Your task to perform on an android device: visit the assistant section in the google photos Image 0: 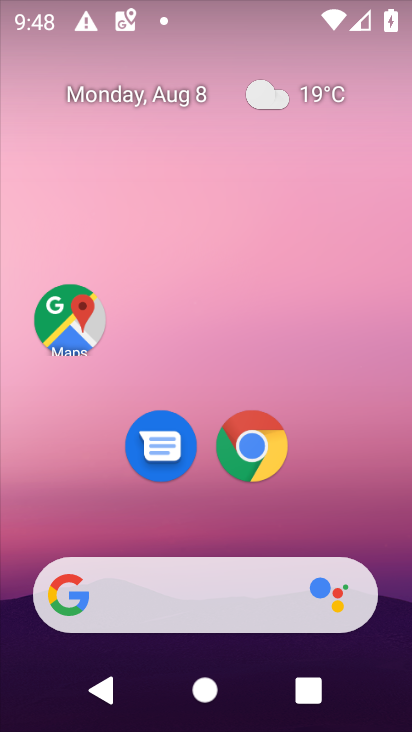
Step 0: drag from (383, 568) to (378, 298)
Your task to perform on an android device: visit the assistant section in the google photos Image 1: 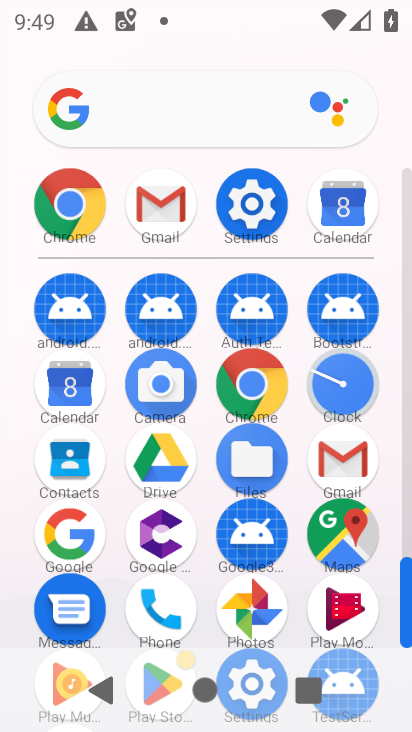
Step 1: click (246, 607)
Your task to perform on an android device: visit the assistant section in the google photos Image 2: 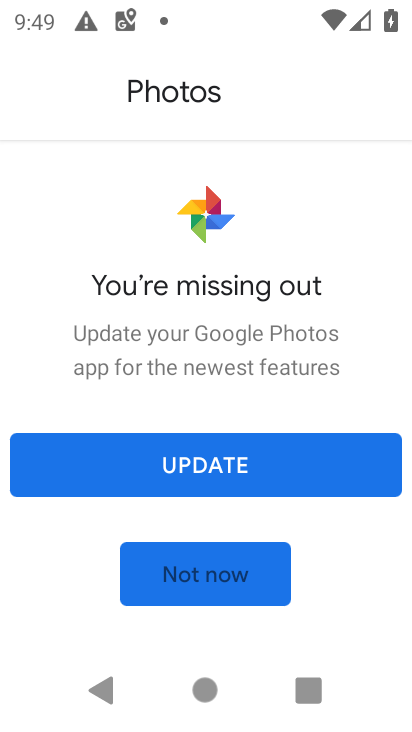
Step 2: click (198, 455)
Your task to perform on an android device: visit the assistant section in the google photos Image 3: 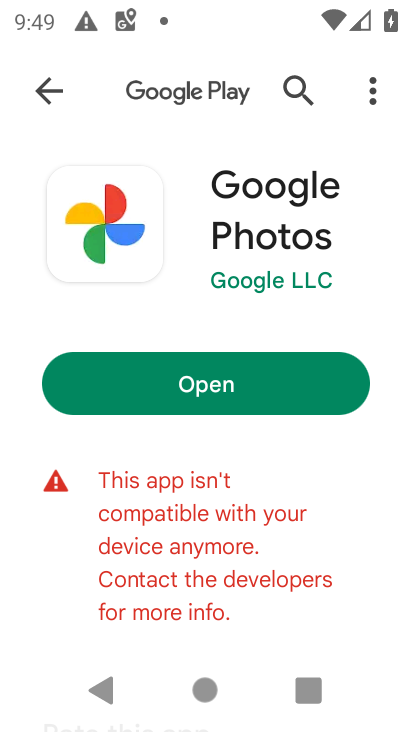
Step 3: click (201, 390)
Your task to perform on an android device: visit the assistant section in the google photos Image 4: 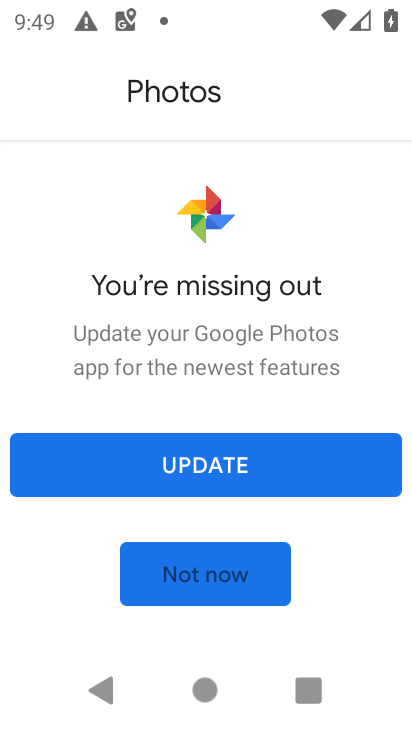
Step 4: click (201, 470)
Your task to perform on an android device: visit the assistant section in the google photos Image 5: 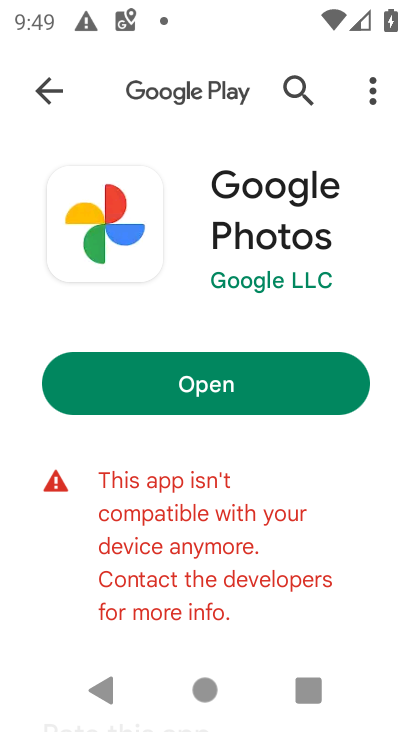
Step 5: task complete